Your task to perform on an android device: turn off sleep mode Image 0: 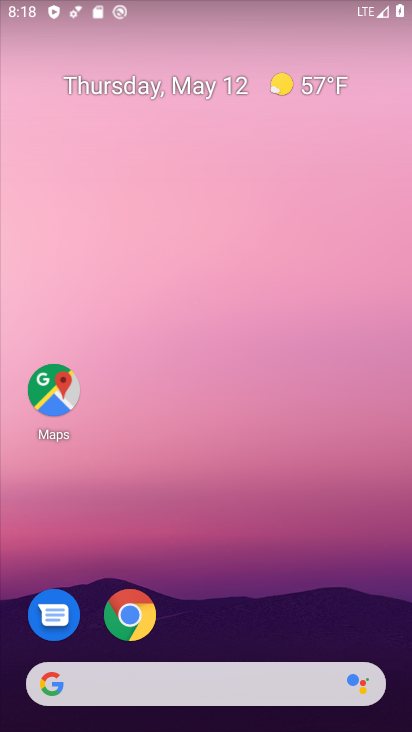
Step 0: drag from (269, 586) to (256, 30)
Your task to perform on an android device: turn off sleep mode Image 1: 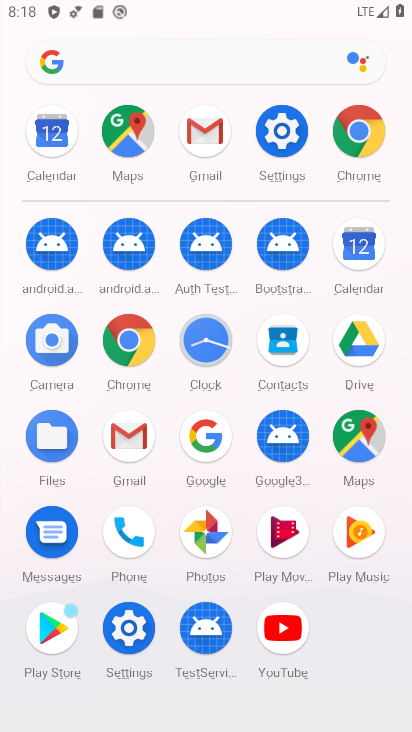
Step 1: drag from (0, 547) to (10, 341)
Your task to perform on an android device: turn off sleep mode Image 2: 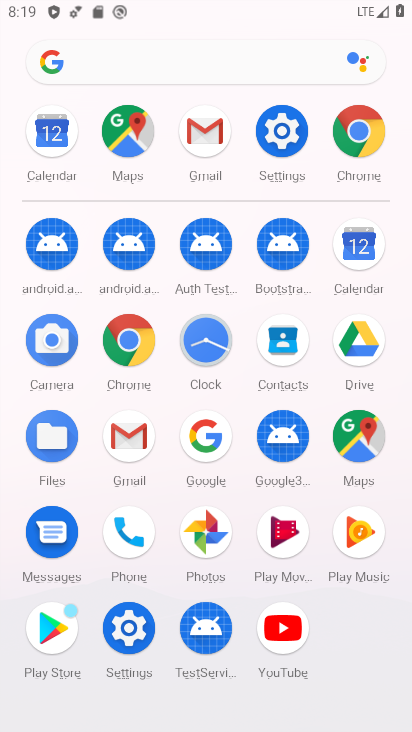
Step 2: click (127, 627)
Your task to perform on an android device: turn off sleep mode Image 3: 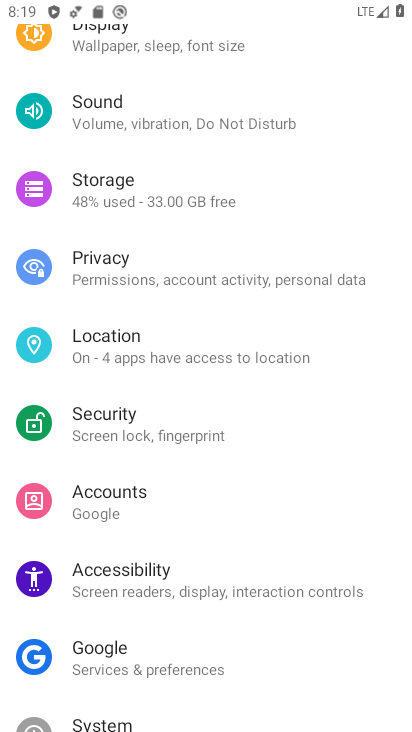
Step 3: drag from (261, 172) to (266, 553)
Your task to perform on an android device: turn off sleep mode Image 4: 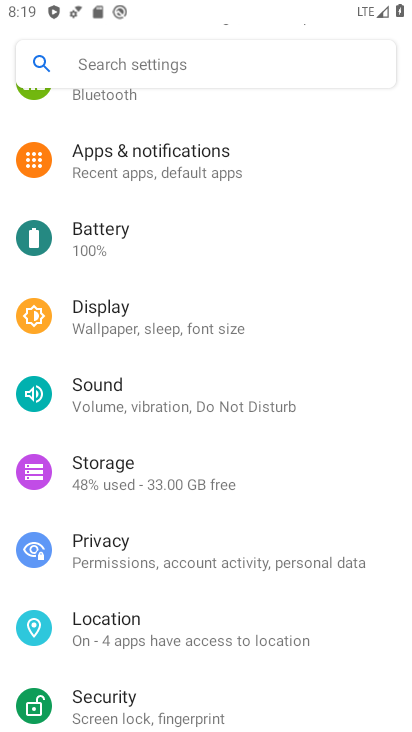
Step 4: drag from (293, 246) to (271, 625)
Your task to perform on an android device: turn off sleep mode Image 5: 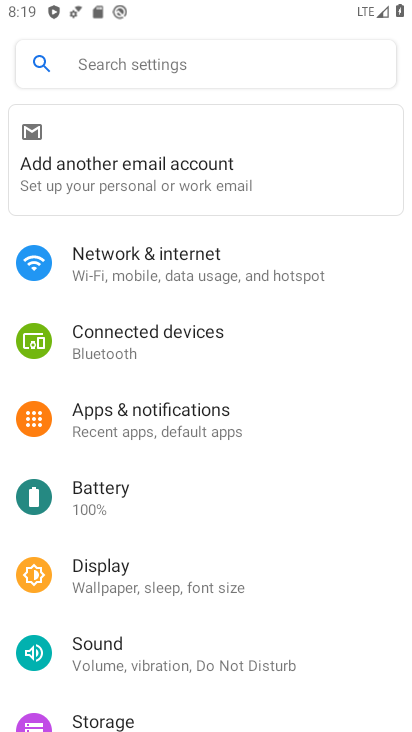
Step 5: drag from (262, 475) to (273, 159)
Your task to perform on an android device: turn off sleep mode Image 6: 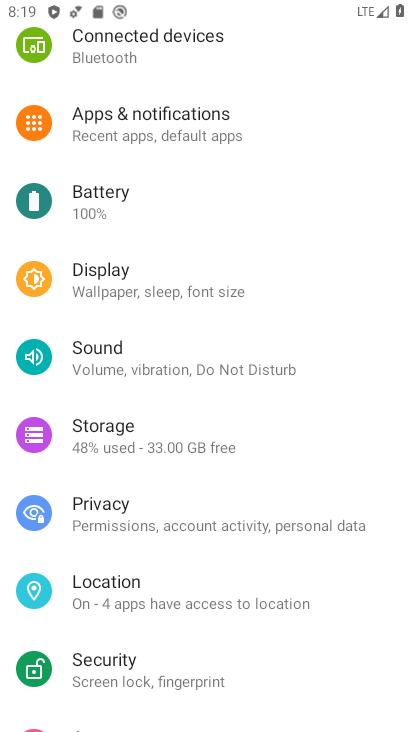
Step 6: drag from (273, 158) to (263, 534)
Your task to perform on an android device: turn off sleep mode Image 7: 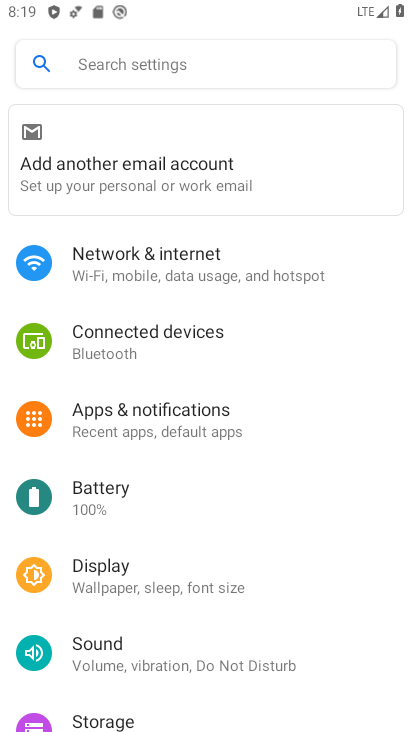
Step 7: click (147, 588)
Your task to perform on an android device: turn off sleep mode Image 8: 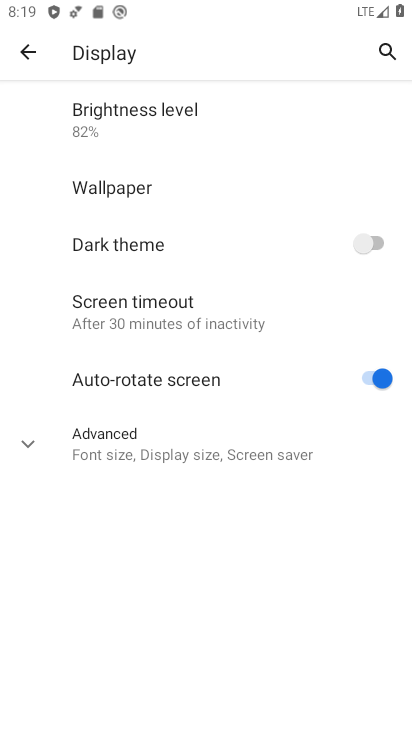
Step 8: click (37, 434)
Your task to perform on an android device: turn off sleep mode Image 9: 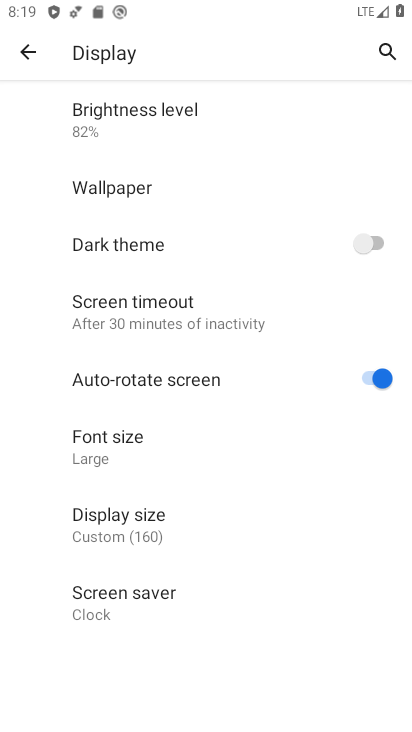
Step 9: task complete